Your task to perform on an android device: turn on notifications settings in the gmail app Image 0: 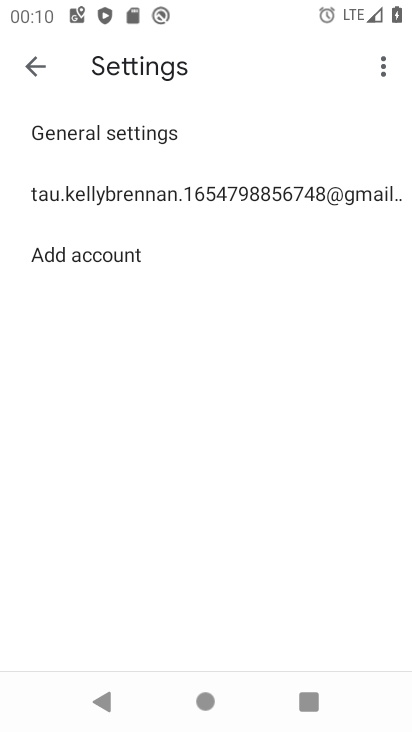
Step 0: press home button
Your task to perform on an android device: turn on notifications settings in the gmail app Image 1: 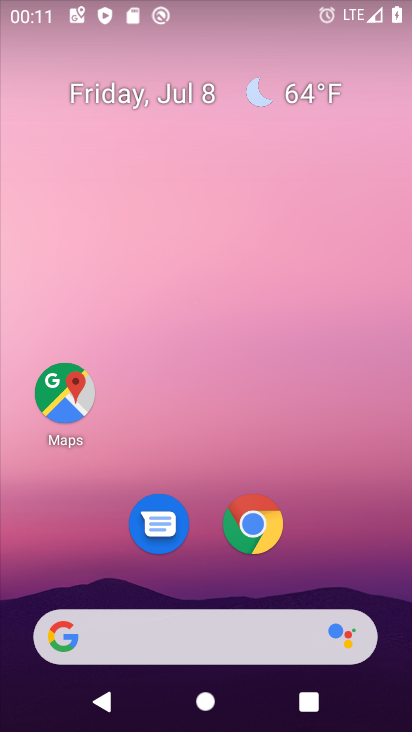
Step 1: drag from (310, 506) to (363, 66)
Your task to perform on an android device: turn on notifications settings in the gmail app Image 2: 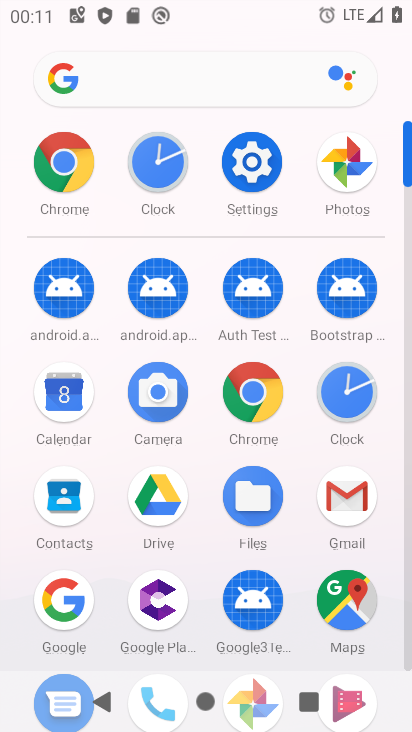
Step 2: click (342, 493)
Your task to perform on an android device: turn on notifications settings in the gmail app Image 3: 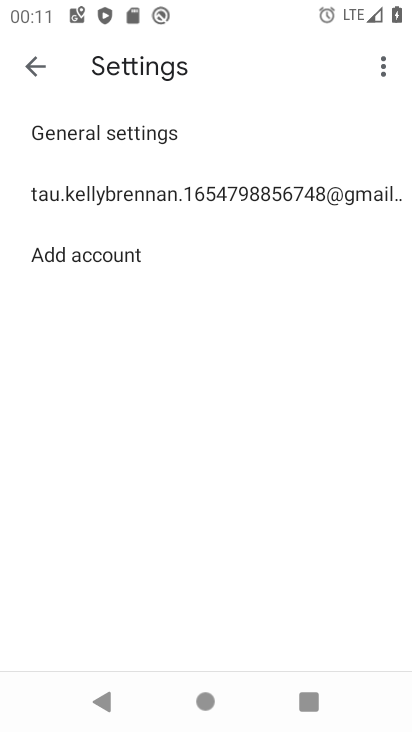
Step 3: click (173, 184)
Your task to perform on an android device: turn on notifications settings in the gmail app Image 4: 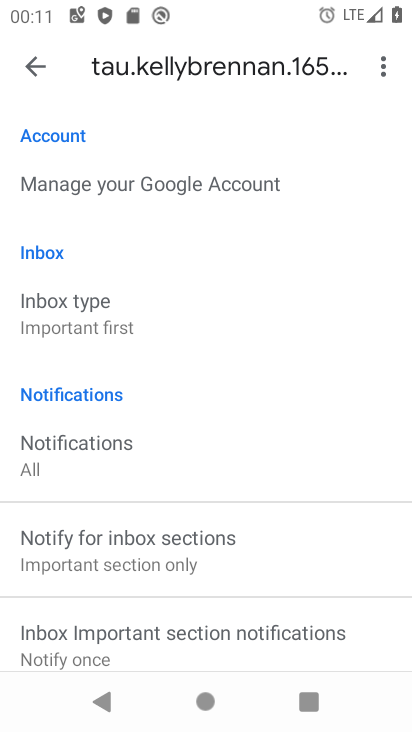
Step 4: drag from (200, 404) to (261, 124)
Your task to perform on an android device: turn on notifications settings in the gmail app Image 5: 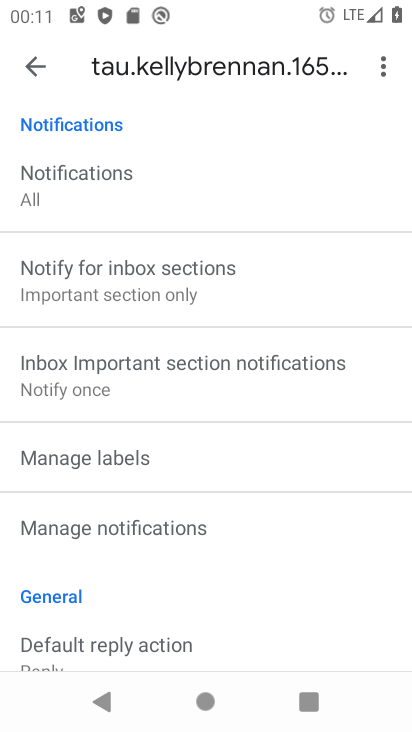
Step 5: click (216, 534)
Your task to perform on an android device: turn on notifications settings in the gmail app Image 6: 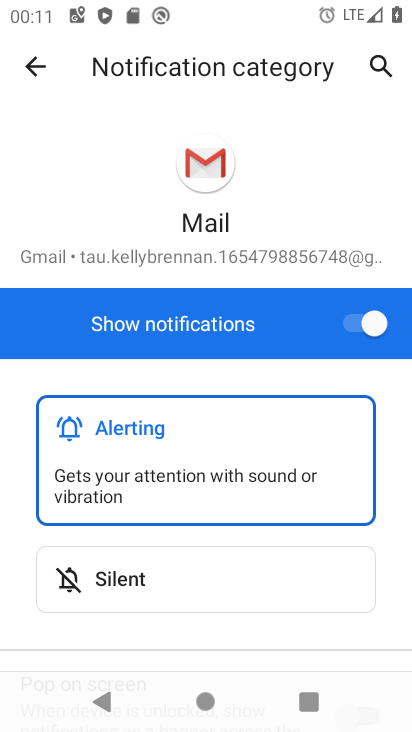
Step 6: task complete